Your task to perform on an android device: turn off javascript in the chrome app Image 0: 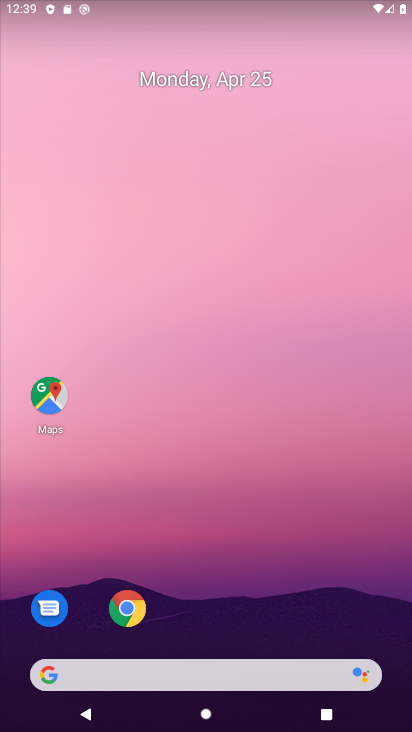
Step 0: drag from (291, 541) to (202, 1)
Your task to perform on an android device: turn off javascript in the chrome app Image 1: 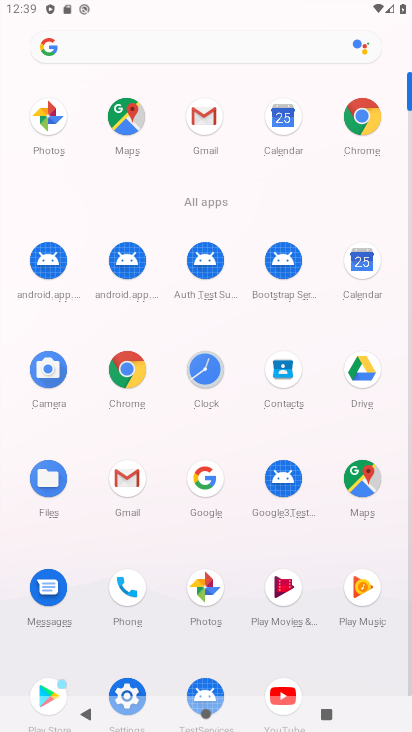
Step 1: click (130, 369)
Your task to perform on an android device: turn off javascript in the chrome app Image 2: 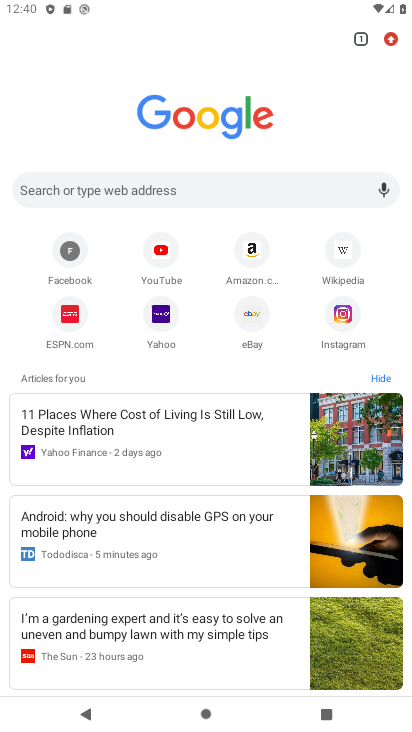
Step 2: drag from (402, 35) to (269, 363)
Your task to perform on an android device: turn off javascript in the chrome app Image 3: 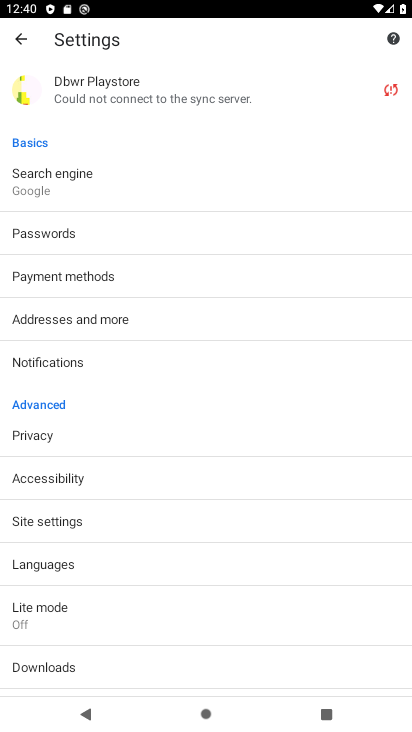
Step 3: click (64, 522)
Your task to perform on an android device: turn off javascript in the chrome app Image 4: 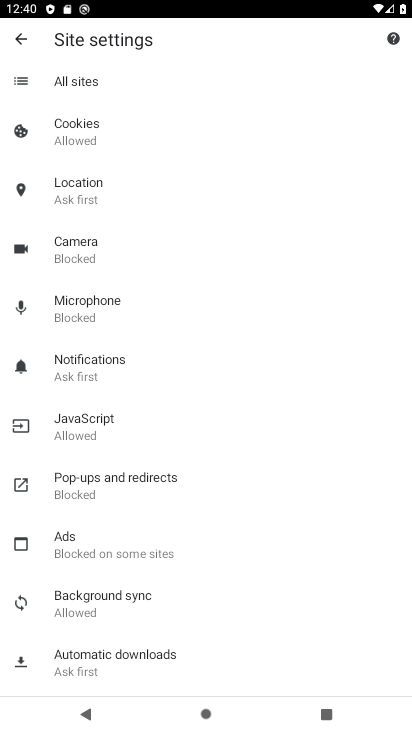
Step 4: click (133, 420)
Your task to perform on an android device: turn off javascript in the chrome app Image 5: 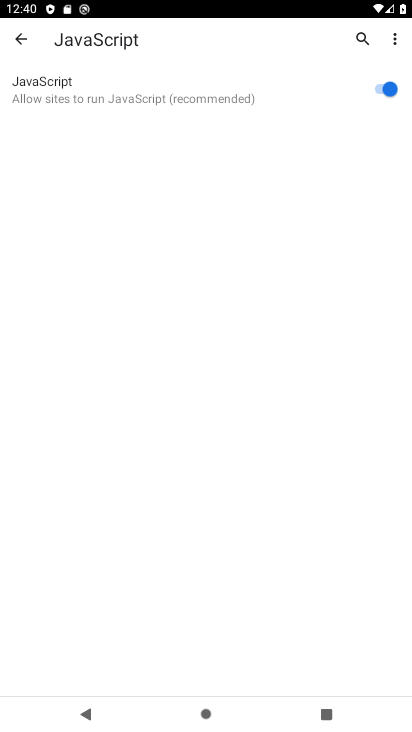
Step 5: click (373, 88)
Your task to perform on an android device: turn off javascript in the chrome app Image 6: 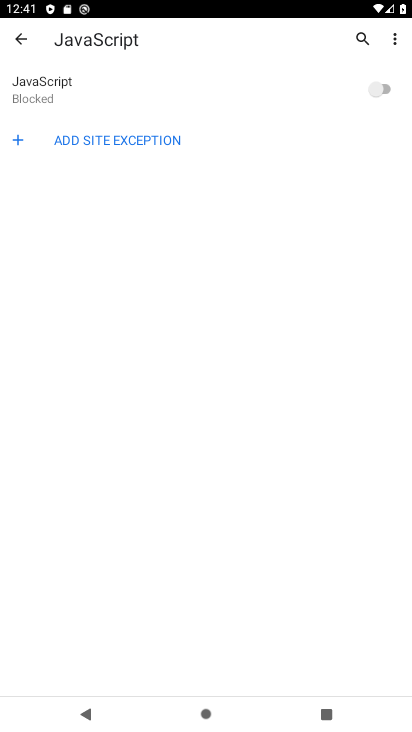
Step 6: task complete